Your task to perform on an android device: move a message to another label in the gmail app Image 0: 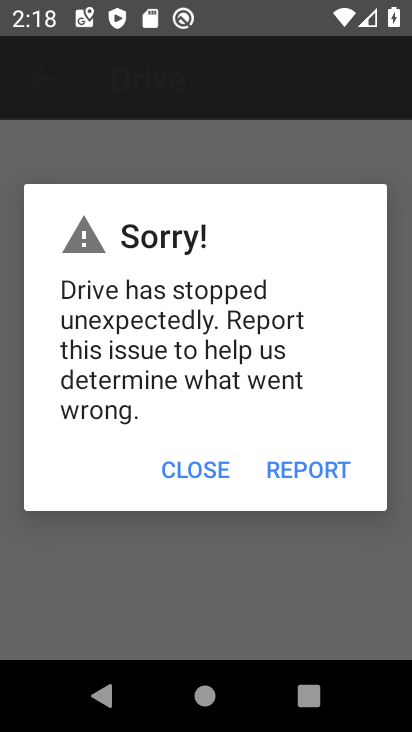
Step 0: press home button
Your task to perform on an android device: move a message to another label in the gmail app Image 1: 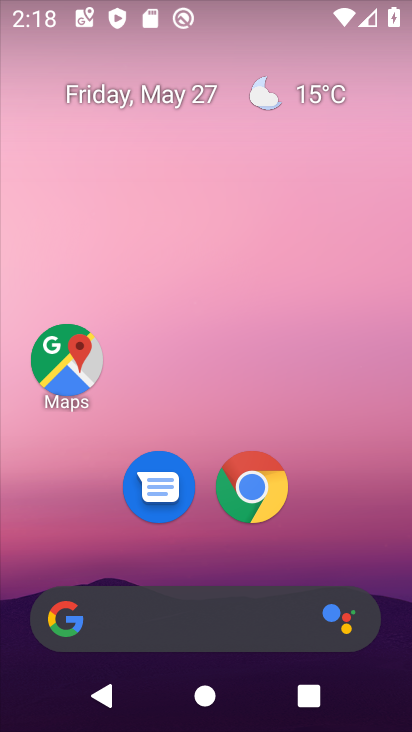
Step 1: drag from (222, 574) to (197, 149)
Your task to perform on an android device: move a message to another label in the gmail app Image 2: 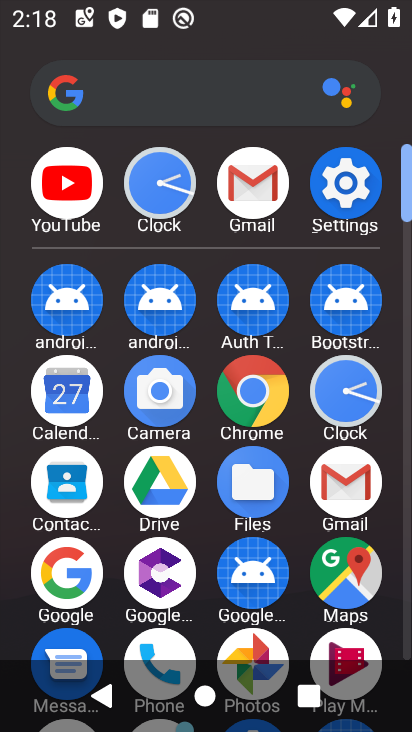
Step 2: click (235, 166)
Your task to perform on an android device: move a message to another label in the gmail app Image 3: 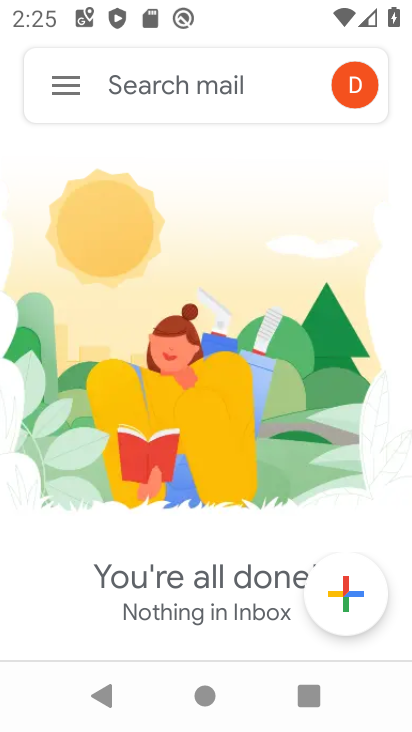
Step 3: task complete